Your task to perform on an android device: turn on airplane mode Image 0: 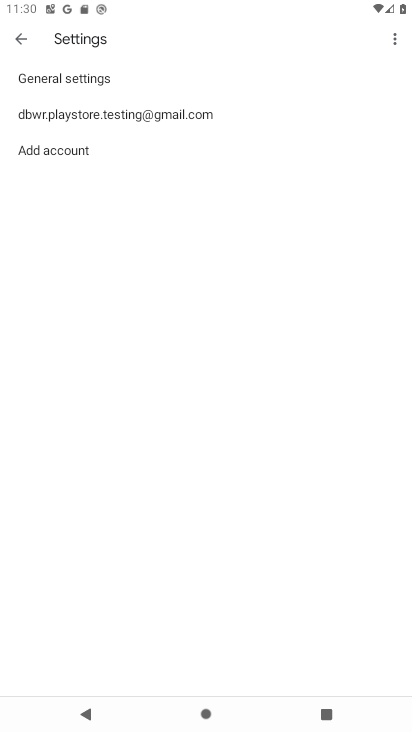
Step 0: press home button
Your task to perform on an android device: turn on airplane mode Image 1: 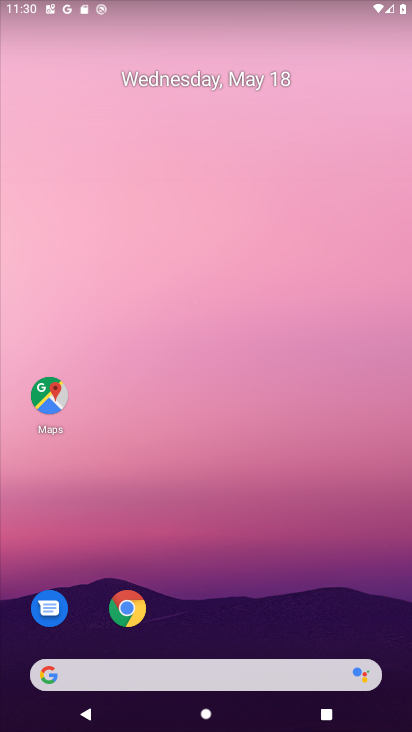
Step 1: drag from (176, 581) to (224, 86)
Your task to perform on an android device: turn on airplane mode Image 2: 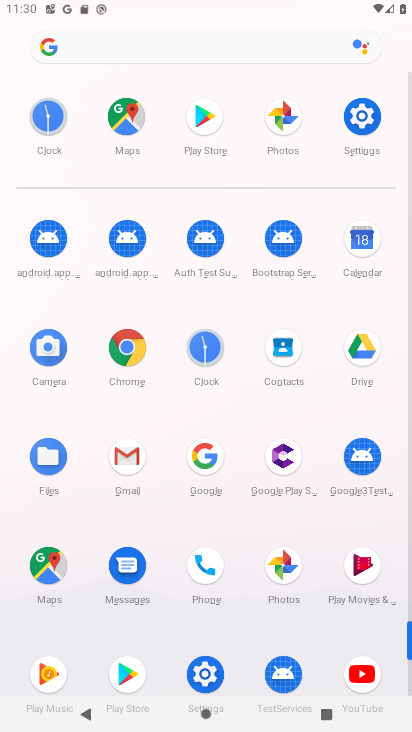
Step 2: click (360, 115)
Your task to perform on an android device: turn on airplane mode Image 3: 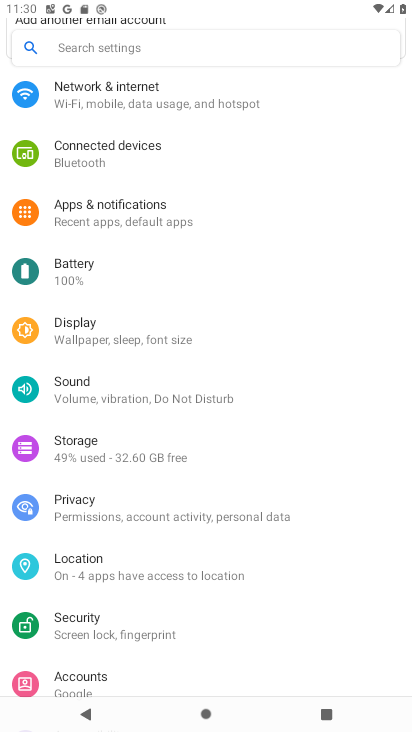
Step 3: click (145, 101)
Your task to perform on an android device: turn on airplane mode Image 4: 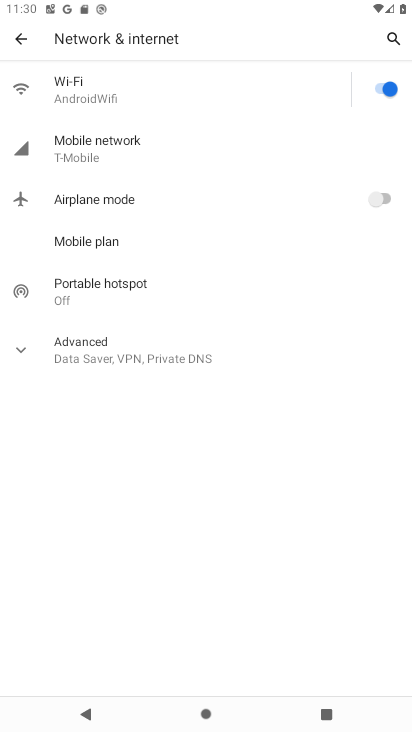
Step 4: click (378, 199)
Your task to perform on an android device: turn on airplane mode Image 5: 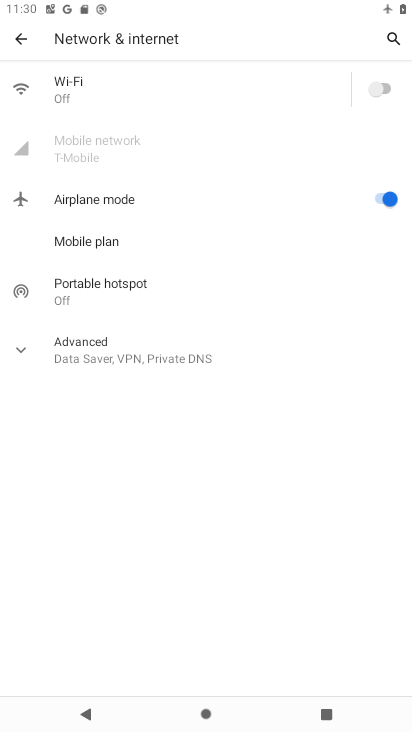
Step 5: task complete